Your task to perform on an android device: Go to Android settings Image 0: 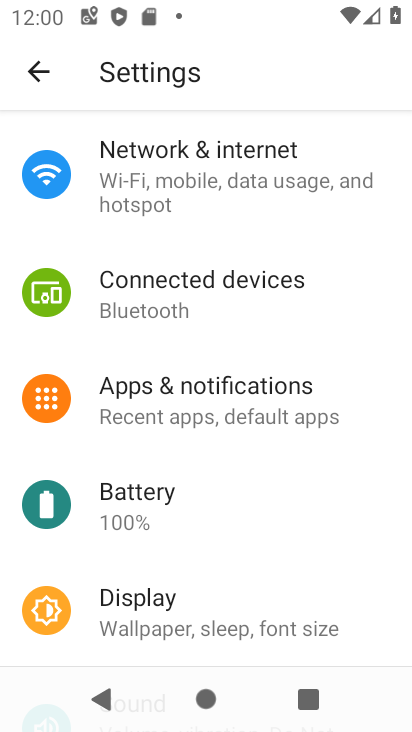
Step 0: task complete